Your task to perform on an android device: Open eBay Image 0: 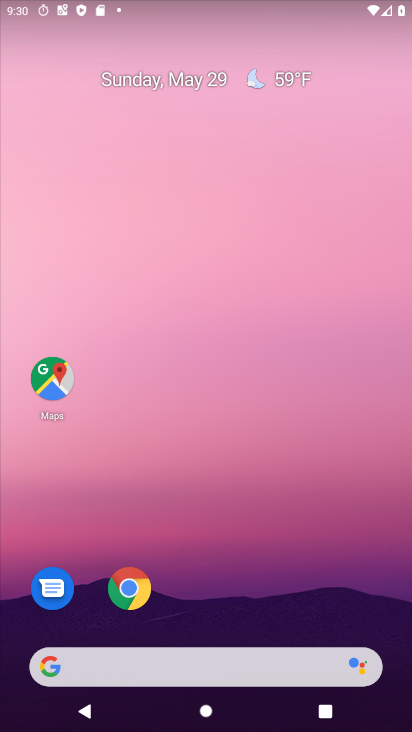
Step 0: drag from (256, 618) to (398, 0)
Your task to perform on an android device: Open eBay Image 1: 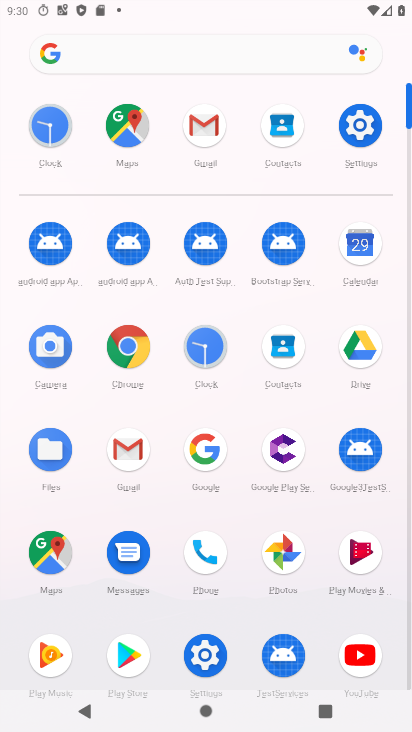
Step 1: click (125, 350)
Your task to perform on an android device: Open eBay Image 2: 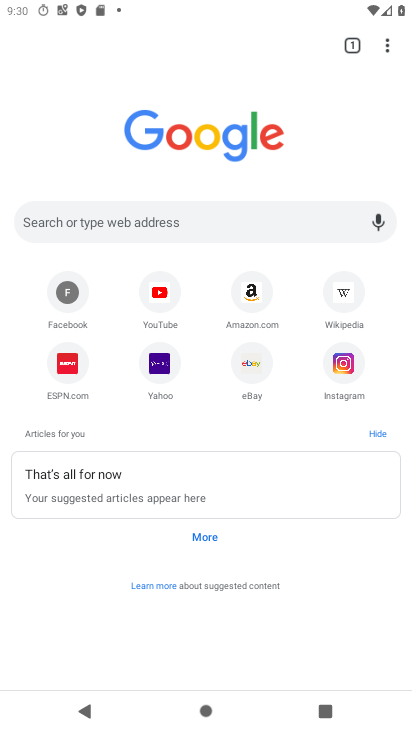
Step 2: click (256, 361)
Your task to perform on an android device: Open eBay Image 3: 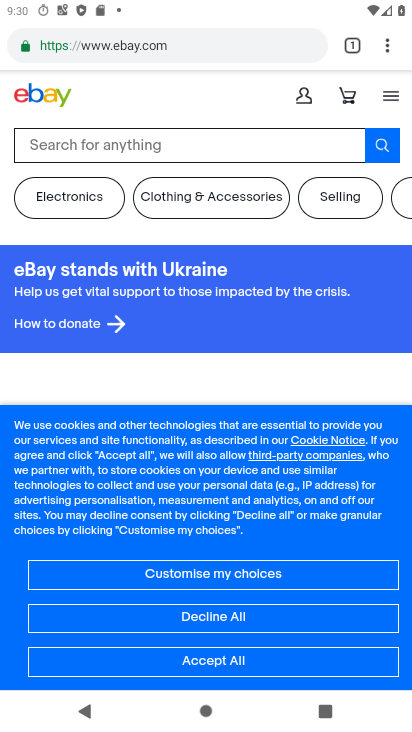
Step 3: task complete